Your task to perform on an android device: delete a single message in the gmail app Image 0: 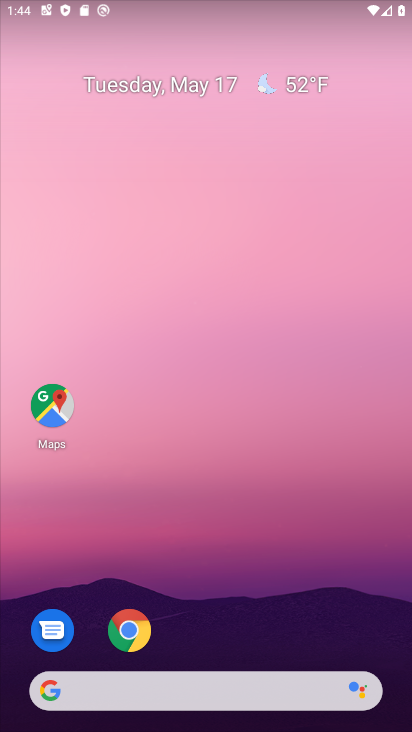
Step 0: drag from (205, 543) to (256, 135)
Your task to perform on an android device: delete a single message in the gmail app Image 1: 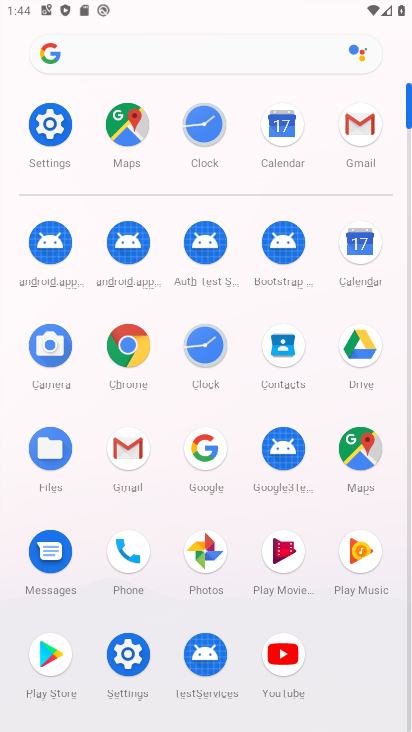
Step 1: click (345, 134)
Your task to perform on an android device: delete a single message in the gmail app Image 2: 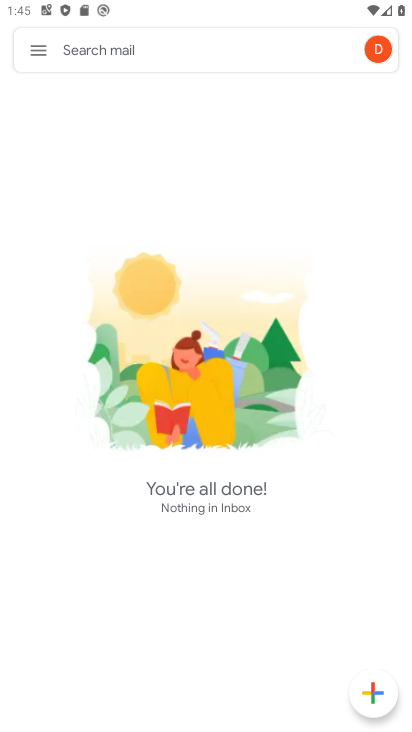
Step 2: click (29, 52)
Your task to perform on an android device: delete a single message in the gmail app Image 3: 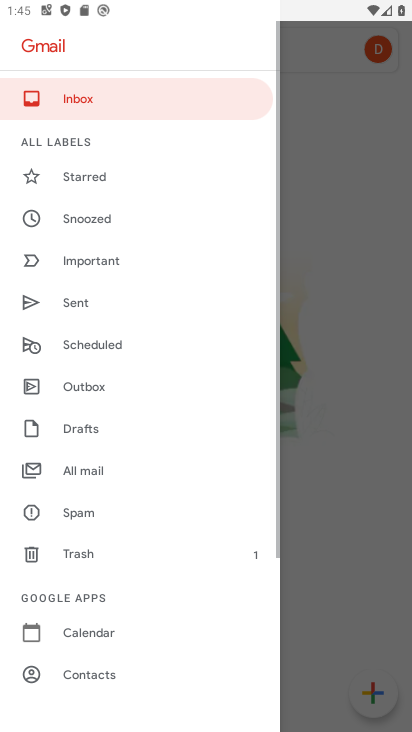
Step 3: click (85, 482)
Your task to perform on an android device: delete a single message in the gmail app Image 4: 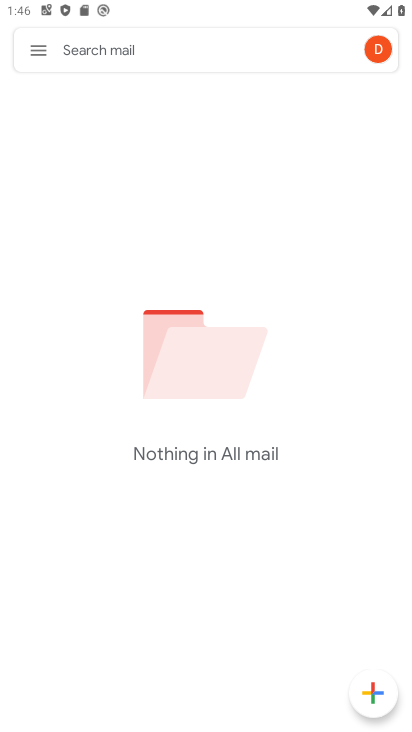
Step 4: task complete